Your task to perform on an android device: visit the assistant section in the google photos Image 0: 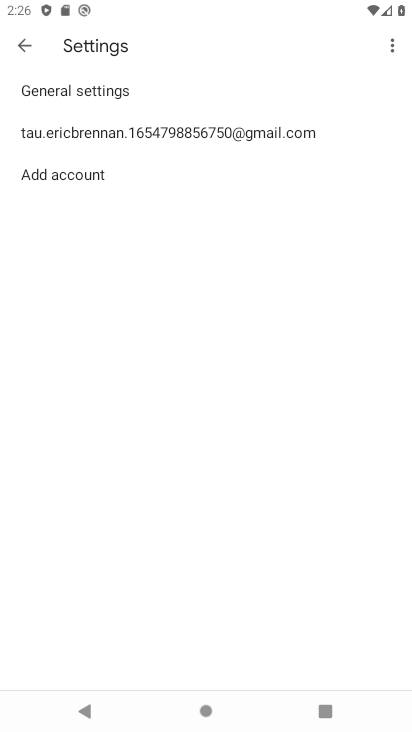
Step 0: drag from (219, 691) to (209, 327)
Your task to perform on an android device: visit the assistant section in the google photos Image 1: 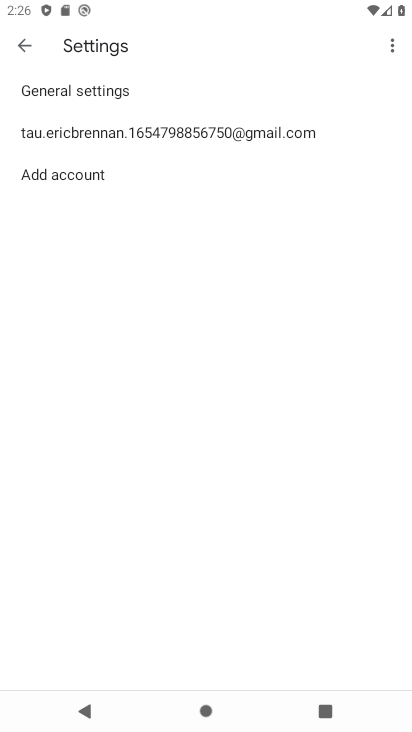
Step 1: press home button
Your task to perform on an android device: visit the assistant section in the google photos Image 2: 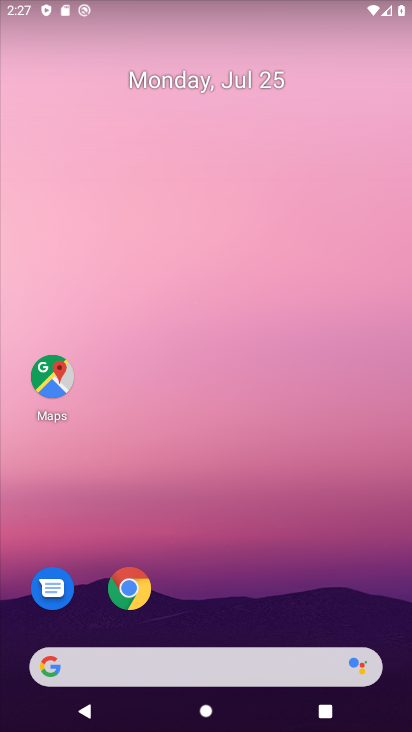
Step 2: drag from (238, 719) to (238, 155)
Your task to perform on an android device: visit the assistant section in the google photos Image 3: 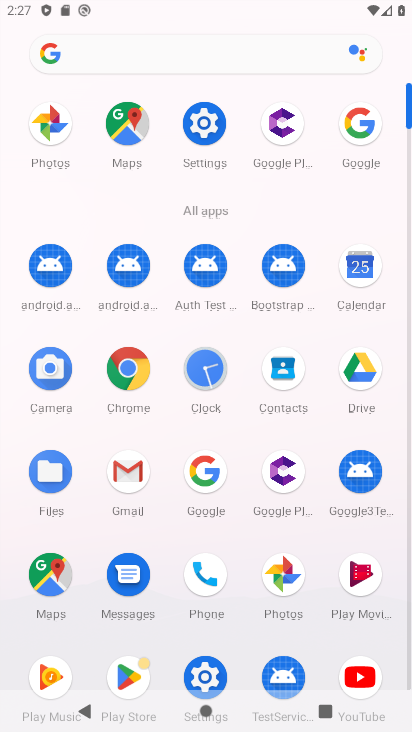
Step 3: click (279, 570)
Your task to perform on an android device: visit the assistant section in the google photos Image 4: 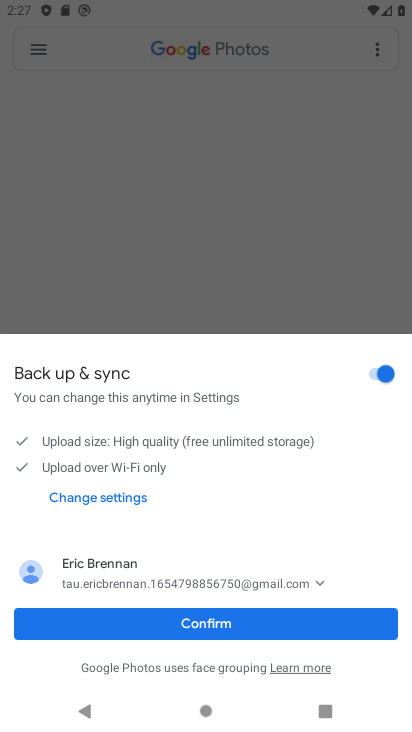
Step 4: click (189, 626)
Your task to perform on an android device: visit the assistant section in the google photos Image 5: 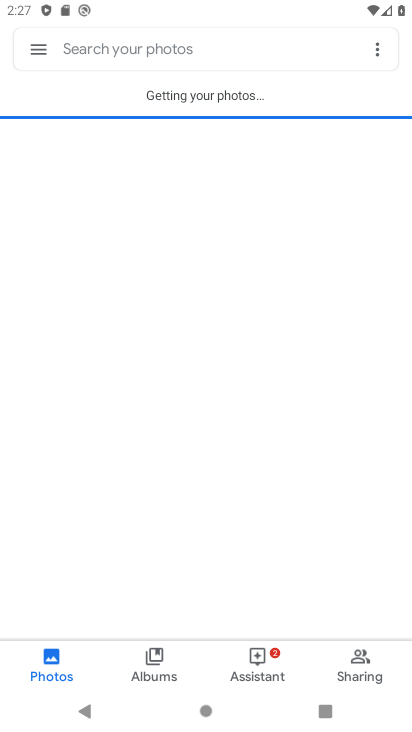
Step 5: click (258, 659)
Your task to perform on an android device: visit the assistant section in the google photos Image 6: 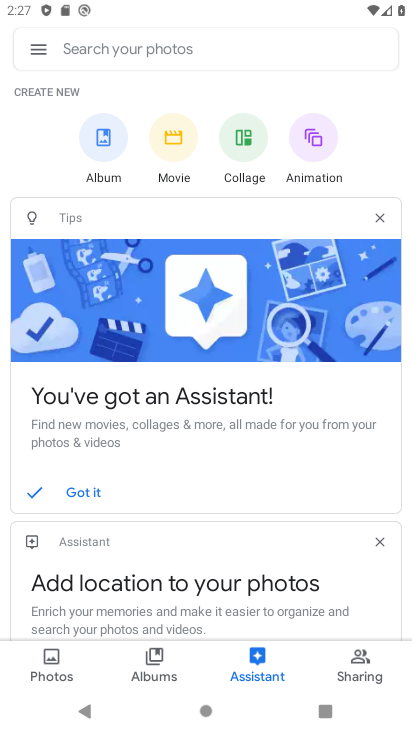
Step 6: task complete